Your task to perform on an android device: turn on location history Image 0: 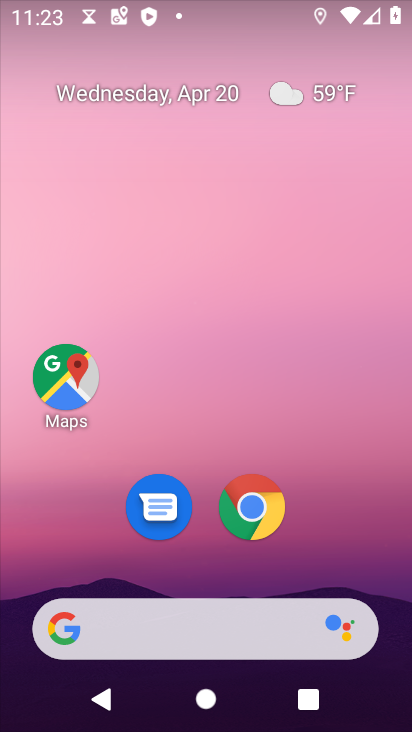
Step 0: drag from (250, 663) to (311, 185)
Your task to perform on an android device: turn on location history Image 1: 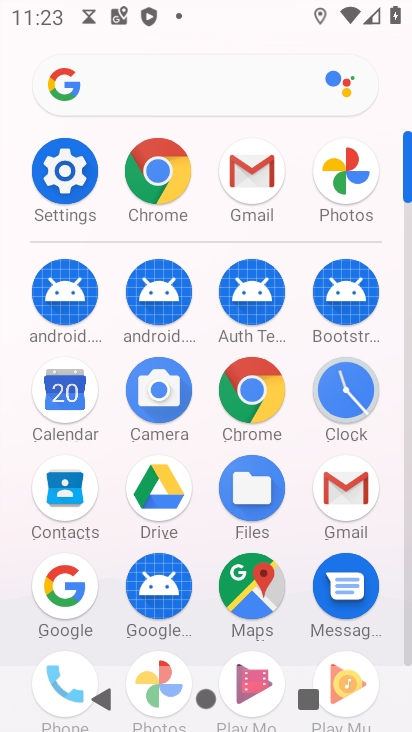
Step 1: click (65, 191)
Your task to perform on an android device: turn on location history Image 2: 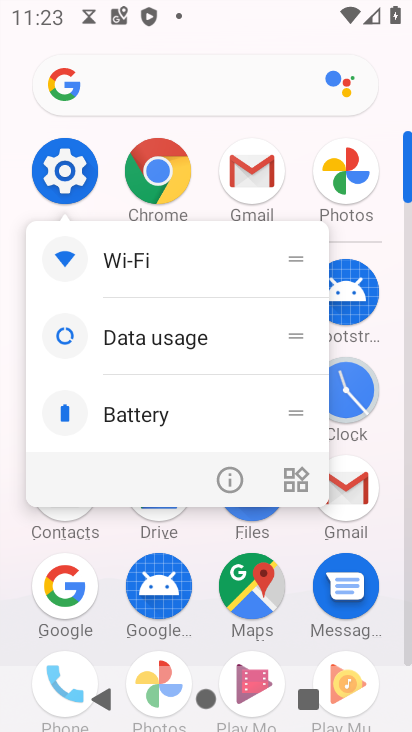
Step 2: click (53, 180)
Your task to perform on an android device: turn on location history Image 3: 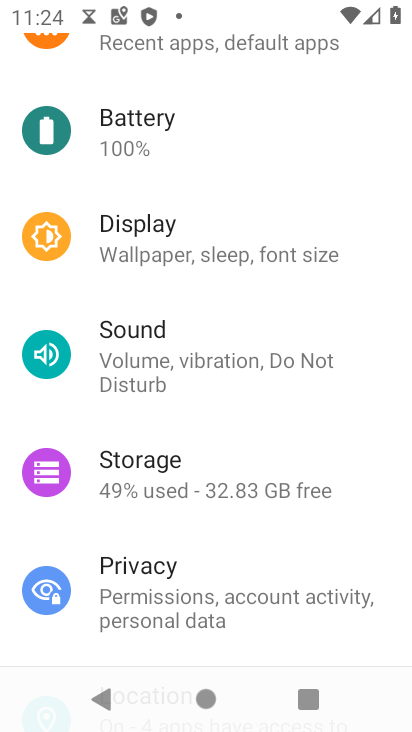
Step 3: drag from (188, 144) to (107, 611)
Your task to perform on an android device: turn on location history Image 4: 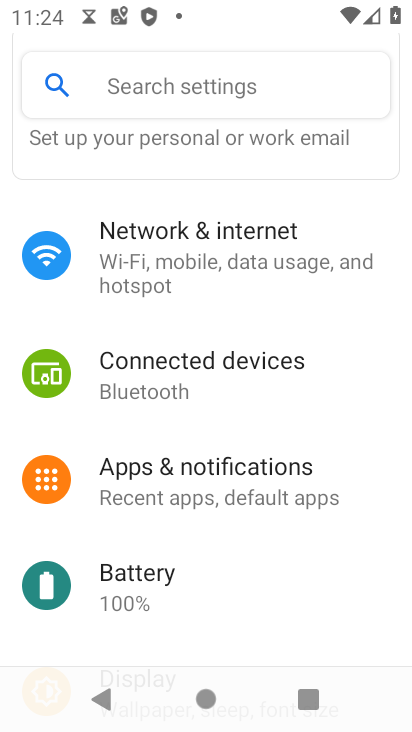
Step 4: click (183, 90)
Your task to perform on an android device: turn on location history Image 5: 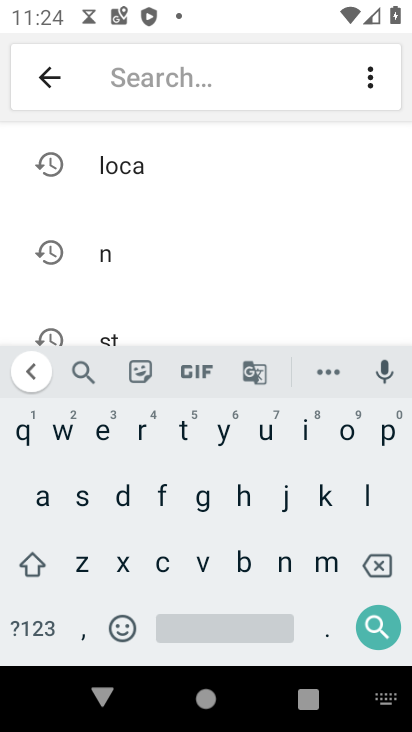
Step 5: click (133, 165)
Your task to perform on an android device: turn on location history Image 6: 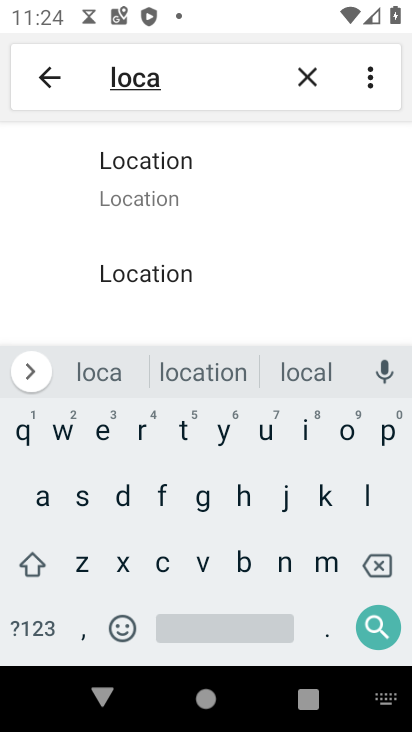
Step 6: click (152, 184)
Your task to perform on an android device: turn on location history Image 7: 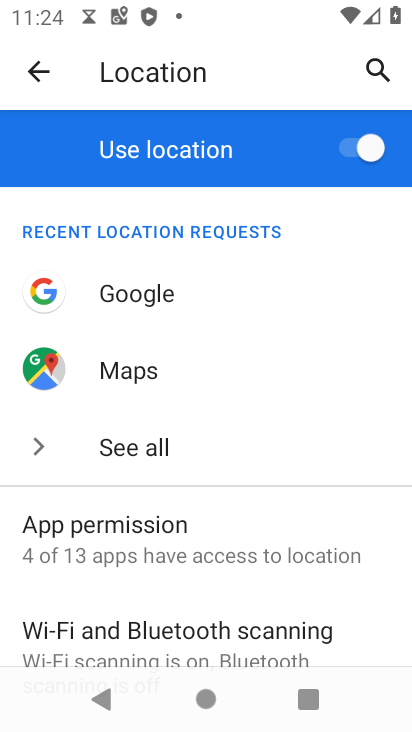
Step 7: drag from (159, 542) to (338, 207)
Your task to perform on an android device: turn on location history Image 8: 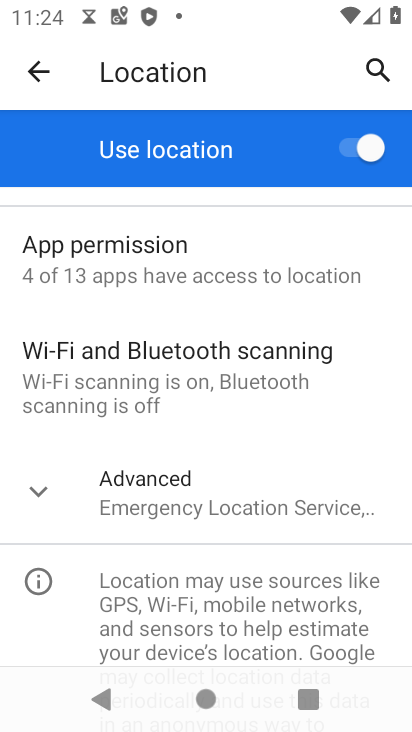
Step 8: click (148, 505)
Your task to perform on an android device: turn on location history Image 9: 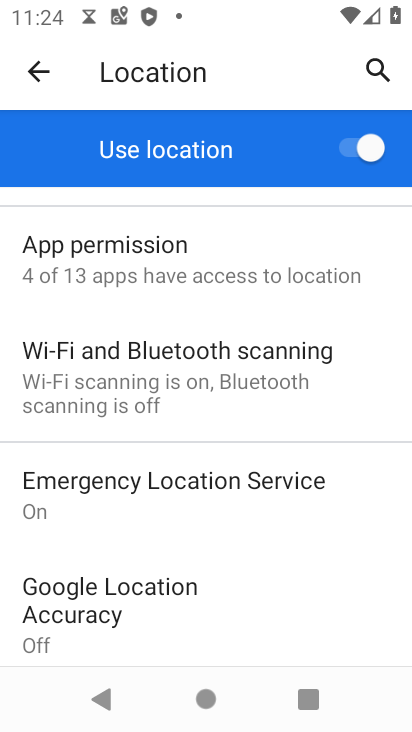
Step 9: drag from (152, 578) to (280, 384)
Your task to perform on an android device: turn on location history Image 10: 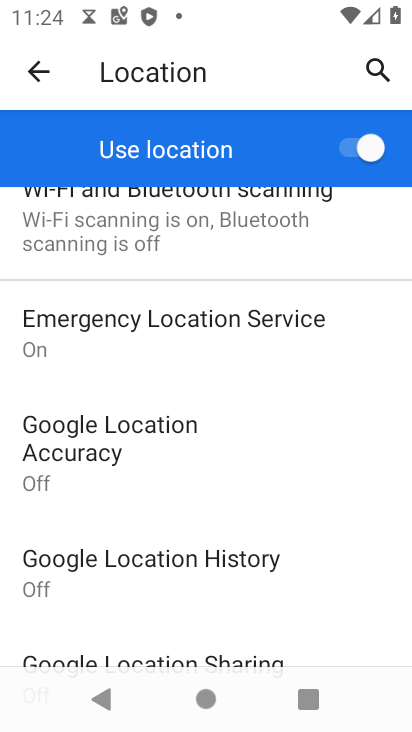
Step 10: drag from (210, 522) to (286, 355)
Your task to perform on an android device: turn on location history Image 11: 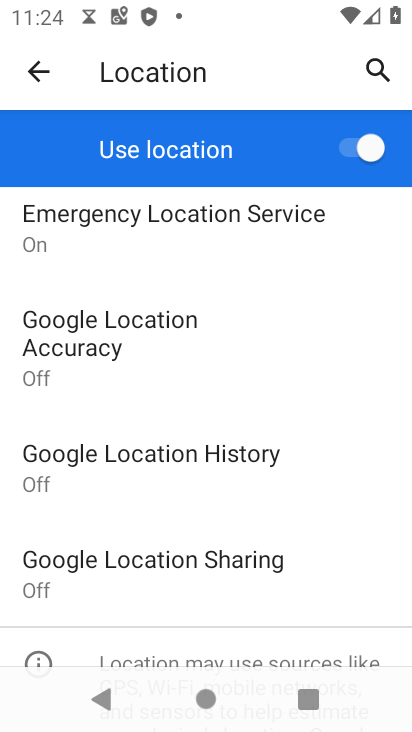
Step 11: click (188, 456)
Your task to perform on an android device: turn on location history Image 12: 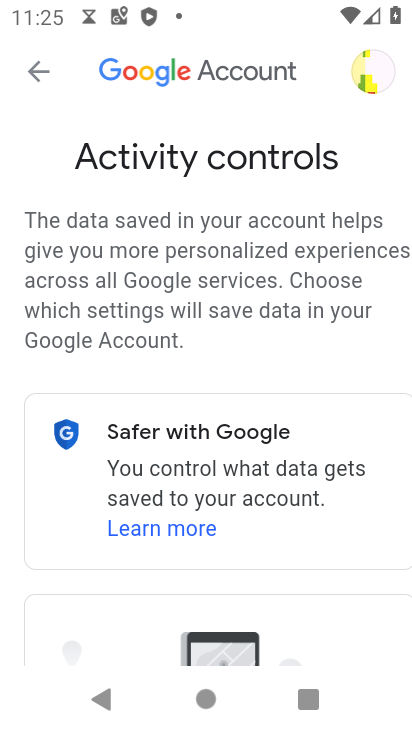
Step 12: drag from (248, 517) to (286, 326)
Your task to perform on an android device: turn on location history Image 13: 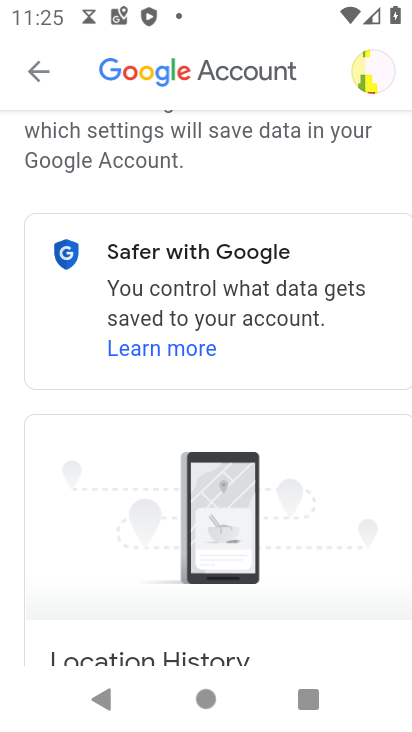
Step 13: drag from (227, 462) to (299, 171)
Your task to perform on an android device: turn on location history Image 14: 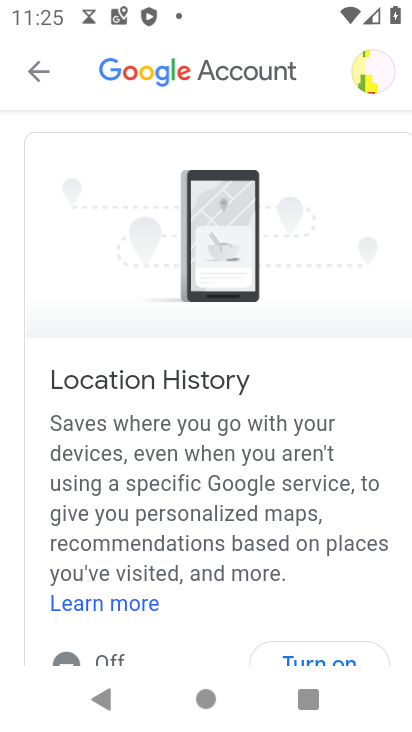
Step 14: drag from (250, 500) to (324, 244)
Your task to perform on an android device: turn on location history Image 15: 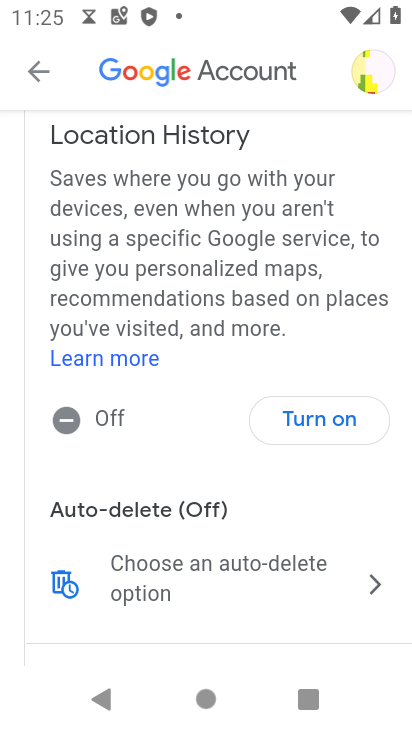
Step 15: click (302, 422)
Your task to perform on an android device: turn on location history Image 16: 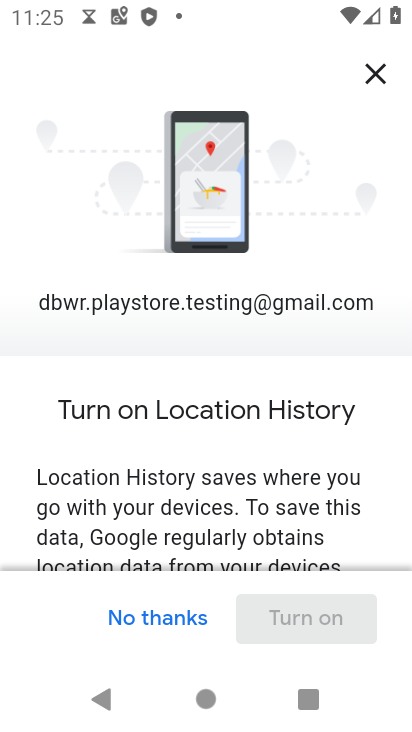
Step 16: task complete